Your task to perform on an android device: Do I have any events this weekend? Image 0: 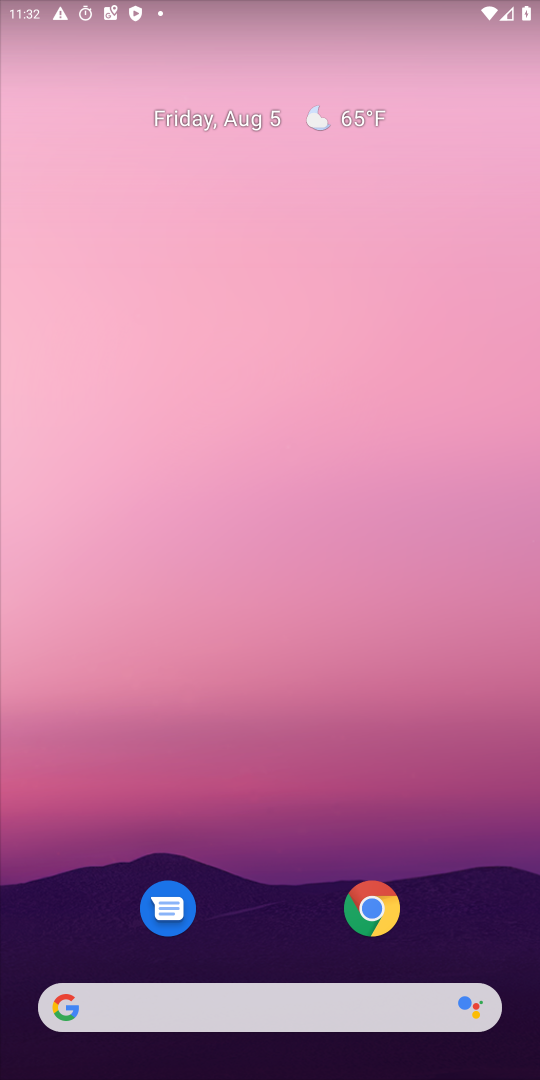
Step 0: drag from (94, 875) to (220, 588)
Your task to perform on an android device: Do I have any events this weekend? Image 1: 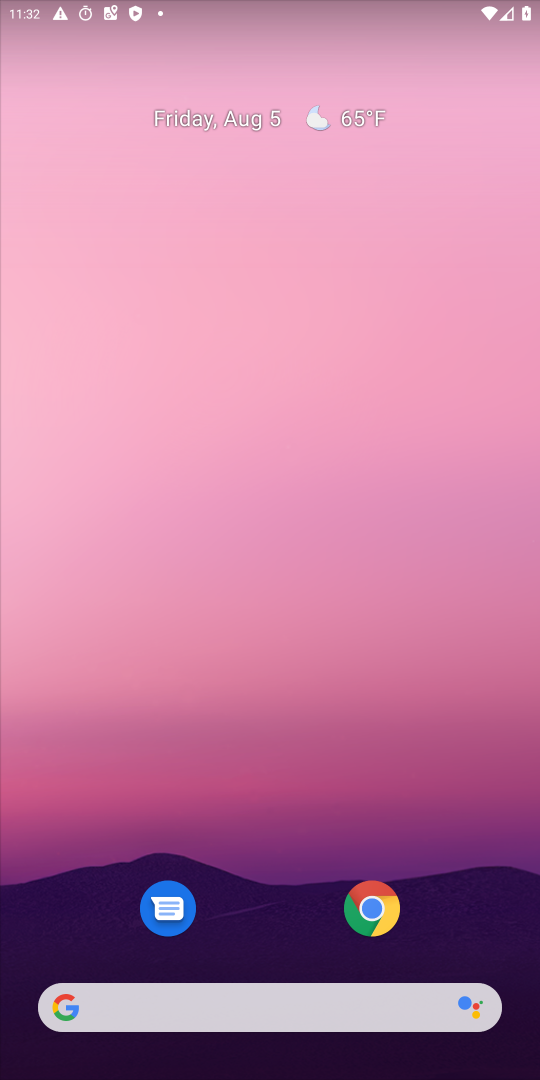
Step 1: drag from (252, 878) to (379, 497)
Your task to perform on an android device: Do I have any events this weekend? Image 2: 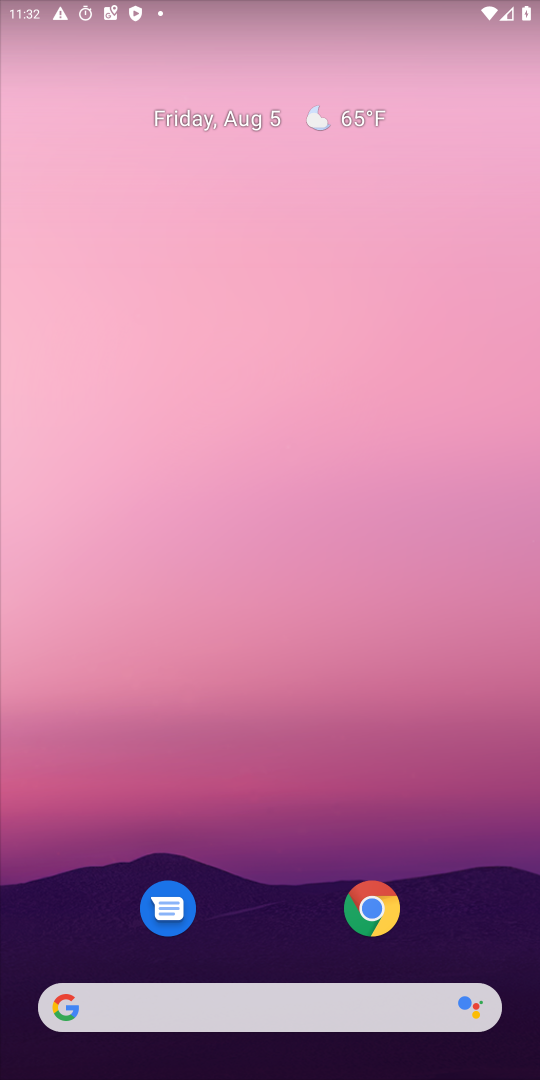
Step 2: click (29, 983)
Your task to perform on an android device: Do I have any events this weekend? Image 3: 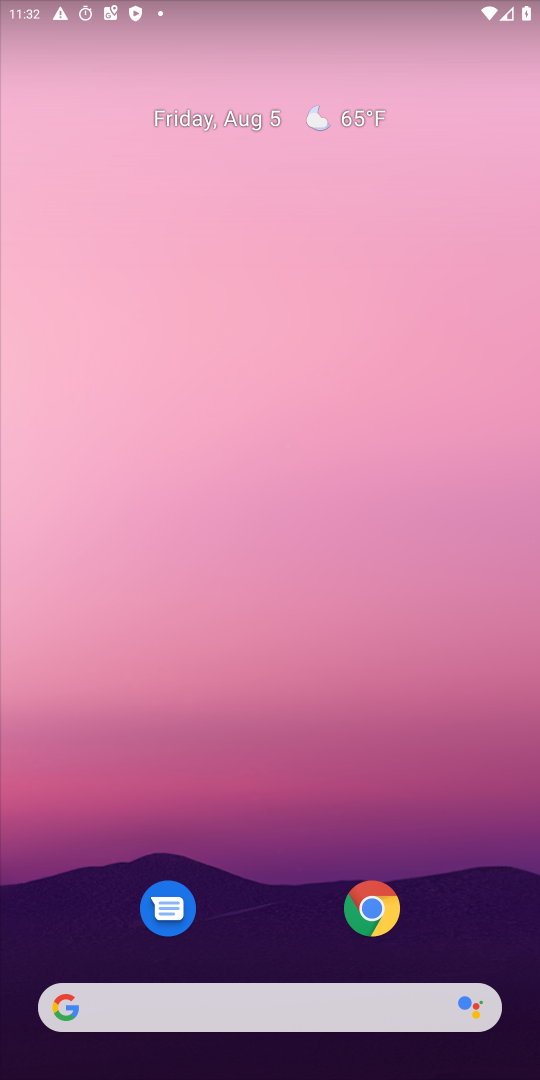
Step 3: drag from (29, 983) to (276, 389)
Your task to perform on an android device: Do I have any events this weekend? Image 4: 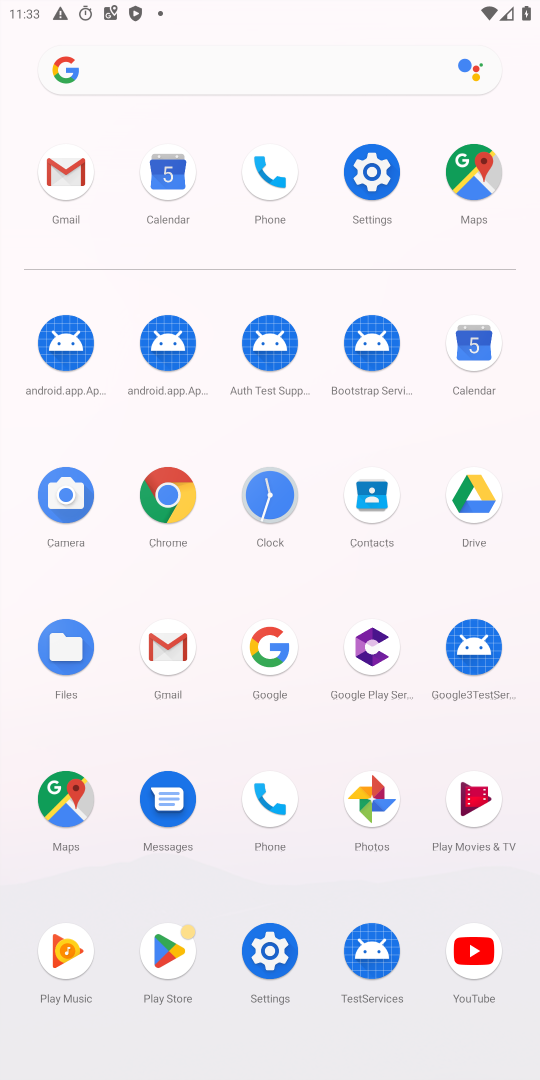
Step 4: click (475, 365)
Your task to perform on an android device: Do I have any events this weekend? Image 5: 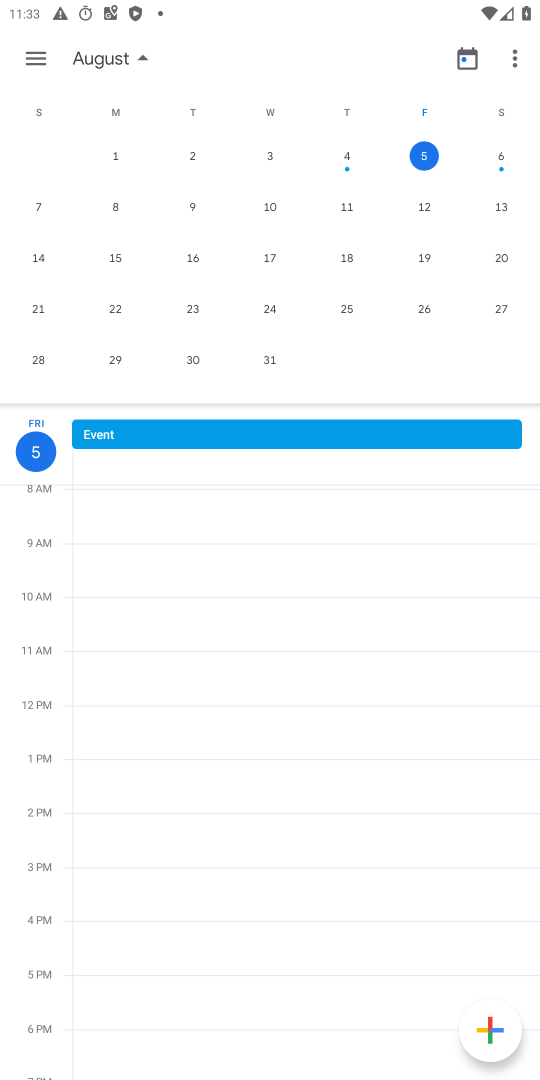
Step 5: task complete